Your task to perform on an android device: turn on showing notifications on the lock screen Image 0: 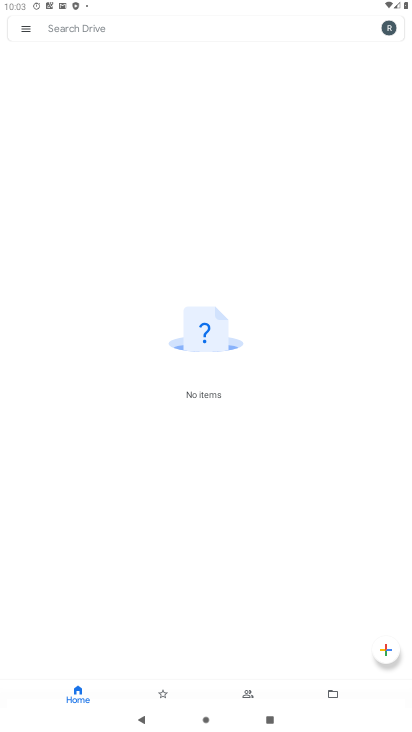
Step 0: drag from (242, 556) to (243, 298)
Your task to perform on an android device: turn on showing notifications on the lock screen Image 1: 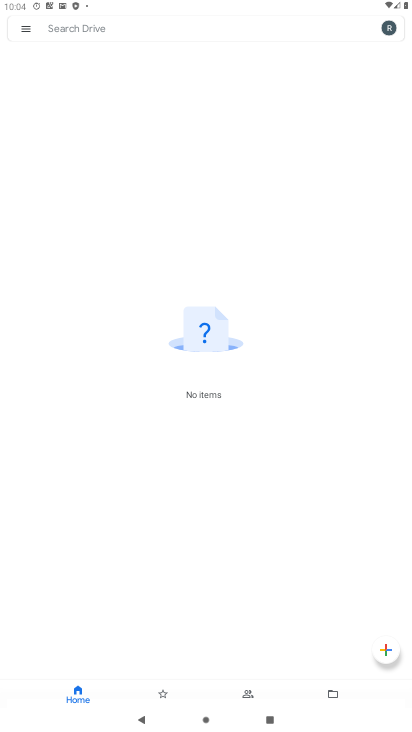
Step 1: press home button
Your task to perform on an android device: turn on showing notifications on the lock screen Image 2: 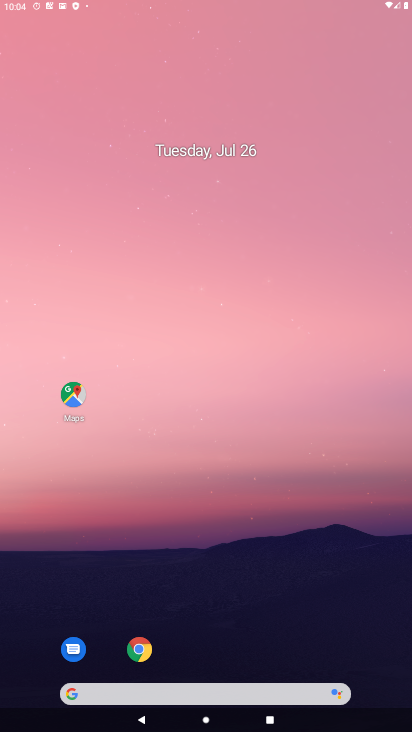
Step 2: drag from (196, 628) to (222, 76)
Your task to perform on an android device: turn on showing notifications on the lock screen Image 3: 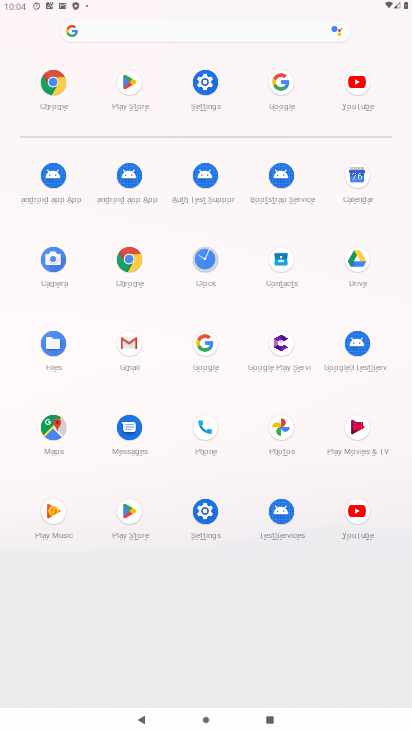
Step 3: click (200, 518)
Your task to perform on an android device: turn on showing notifications on the lock screen Image 4: 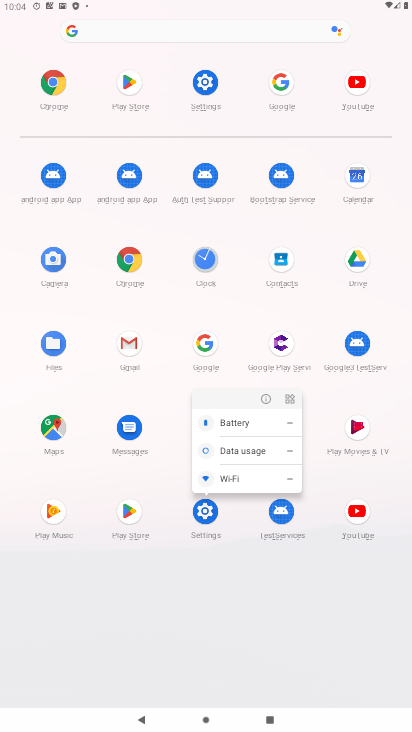
Step 4: click (269, 397)
Your task to perform on an android device: turn on showing notifications on the lock screen Image 5: 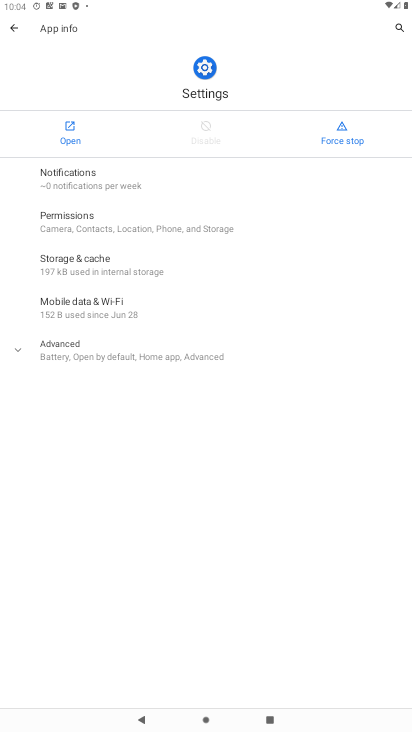
Step 5: click (128, 201)
Your task to perform on an android device: turn on showing notifications on the lock screen Image 6: 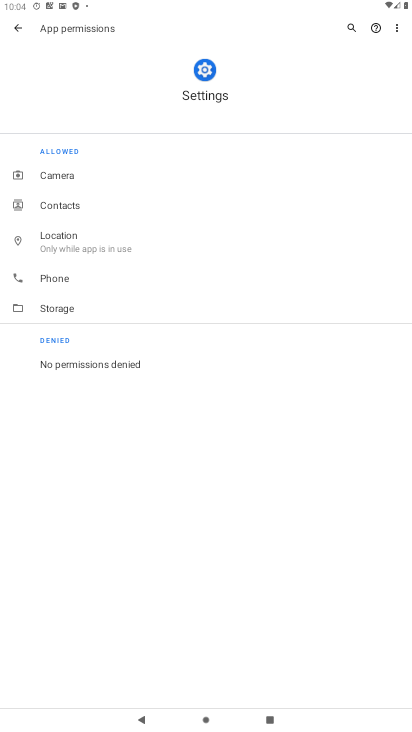
Step 6: click (15, 32)
Your task to perform on an android device: turn on showing notifications on the lock screen Image 7: 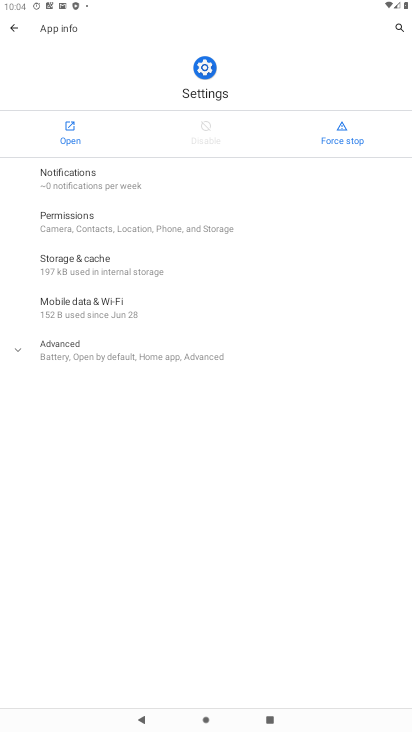
Step 7: click (110, 174)
Your task to perform on an android device: turn on showing notifications on the lock screen Image 8: 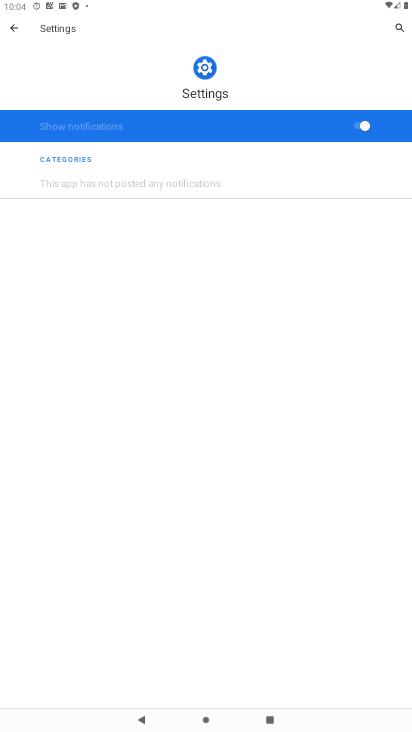
Step 8: drag from (209, 339) to (234, 169)
Your task to perform on an android device: turn on showing notifications on the lock screen Image 9: 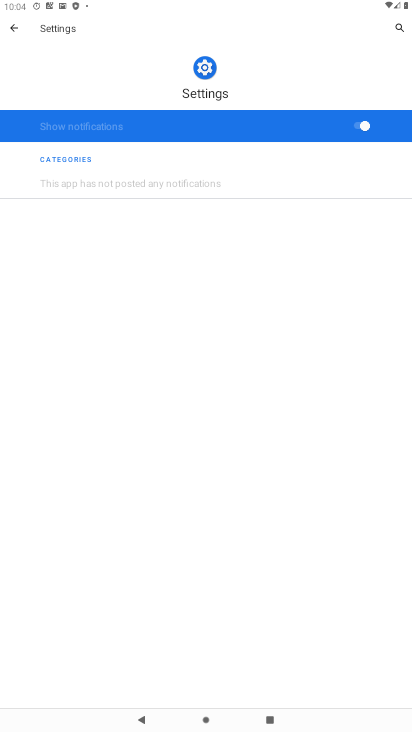
Step 9: click (19, 41)
Your task to perform on an android device: turn on showing notifications on the lock screen Image 10: 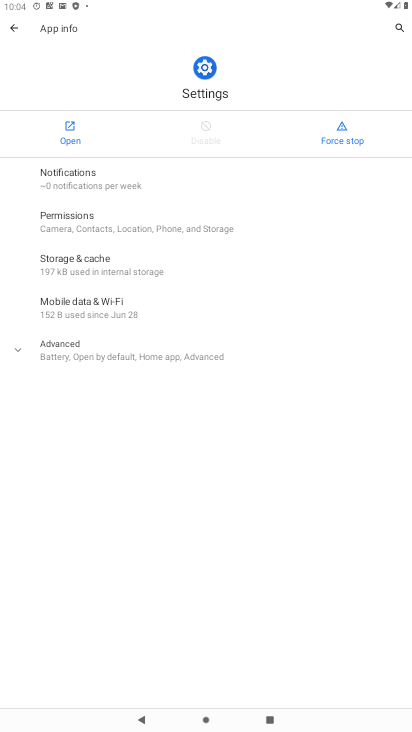
Step 10: click (57, 136)
Your task to perform on an android device: turn on showing notifications on the lock screen Image 11: 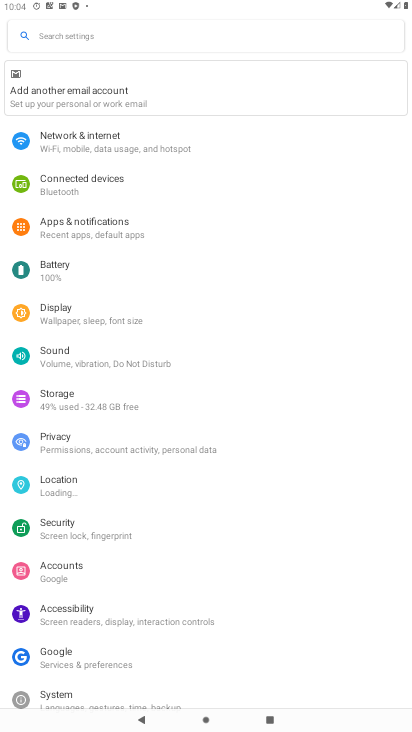
Step 11: click (115, 225)
Your task to perform on an android device: turn on showing notifications on the lock screen Image 12: 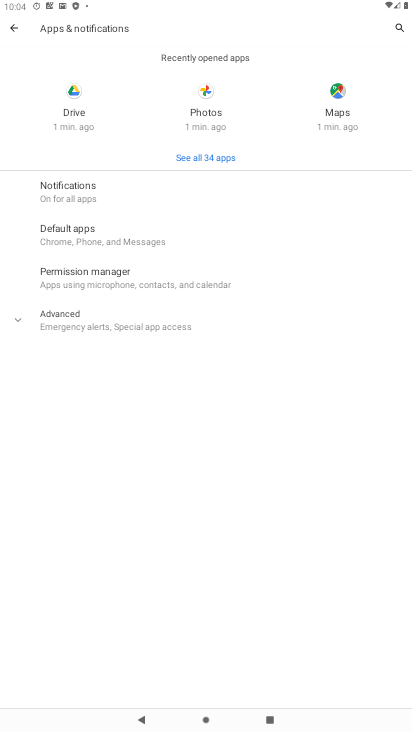
Step 12: click (111, 172)
Your task to perform on an android device: turn on showing notifications on the lock screen Image 13: 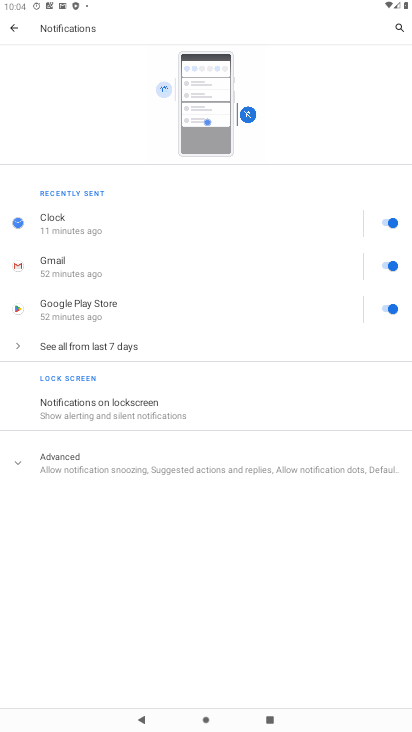
Step 13: drag from (269, 506) to (285, 251)
Your task to perform on an android device: turn on showing notifications on the lock screen Image 14: 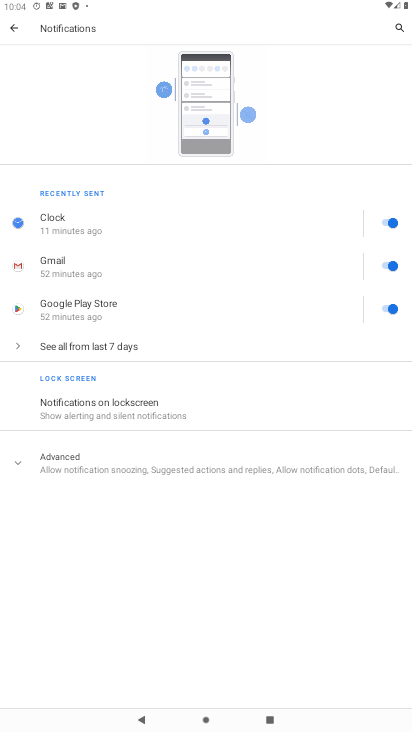
Step 14: click (121, 414)
Your task to perform on an android device: turn on showing notifications on the lock screen Image 15: 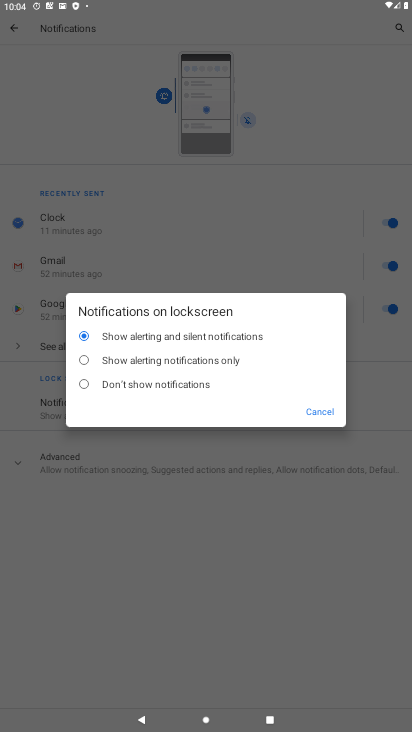
Step 15: task complete